Your task to perform on an android device: Go to Yahoo.com Image 0: 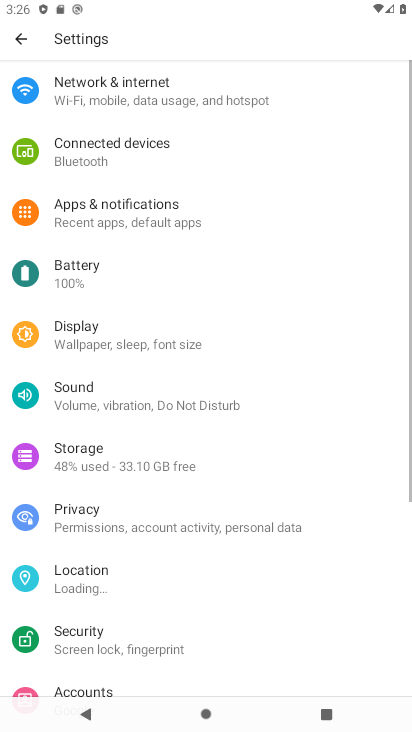
Step 0: press home button
Your task to perform on an android device: Go to Yahoo.com Image 1: 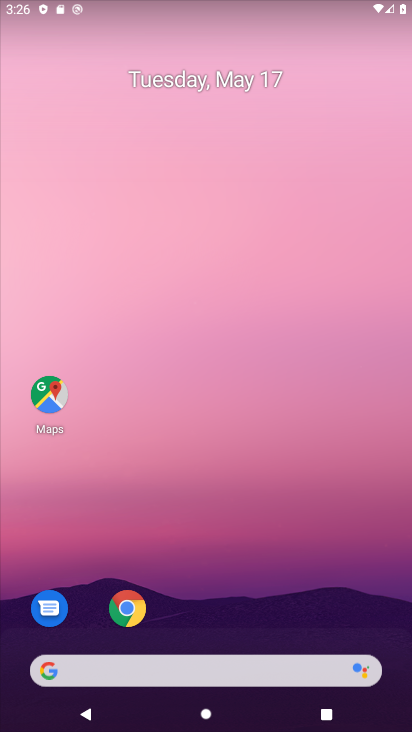
Step 1: click (125, 610)
Your task to perform on an android device: Go to Yahoo.com Image 2: 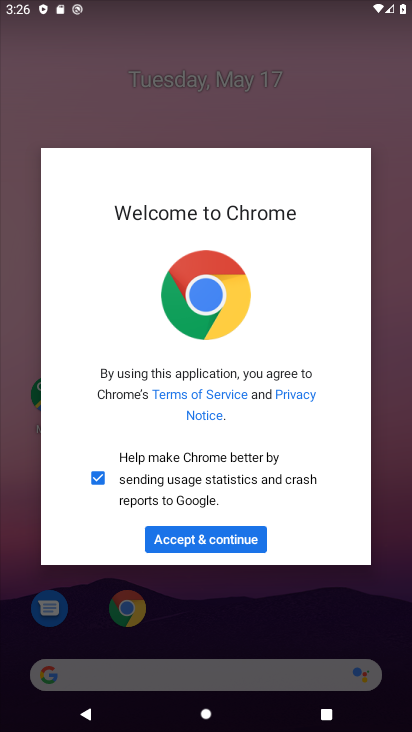
Step 2: click (202, 536)
Your task to perform on an android device: Go to Yahoo.com Image 3: 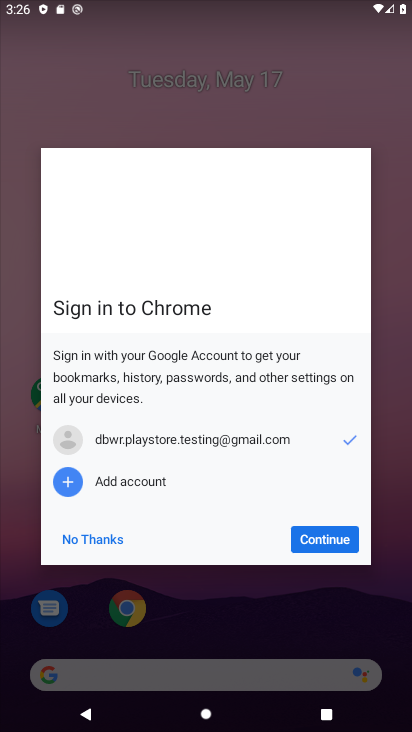
Step 3: click (297, 543)
Your task to perform on an android device: Go to Yahoo.com Image 4: 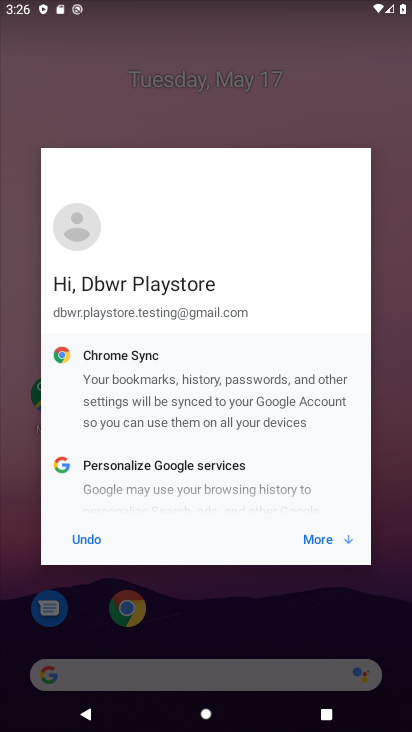
Step 4: click (308, 538)
Your task to perform on an android device: Go to Yahoo.com Image 5: 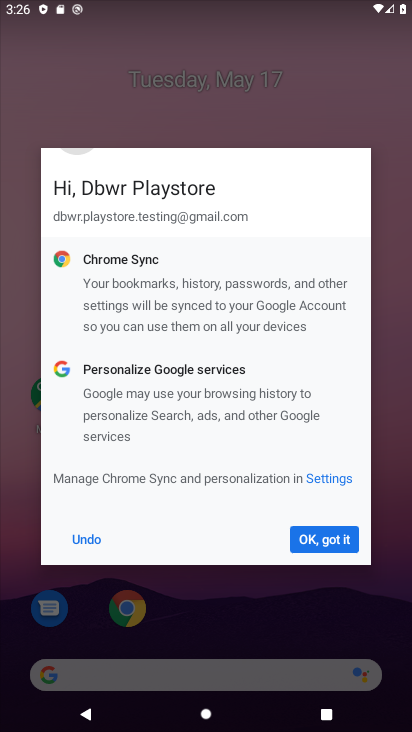
Step 5: click (308, 538)
Your task to perform on an android device: Go to Yahoo.com Image 6: 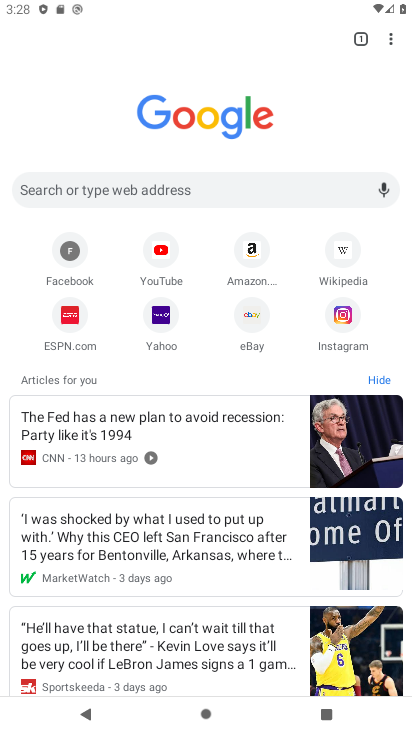
Step 6: click (160, 311)
Your task to perform on an android device: Go to Yahoo.com Image 7: 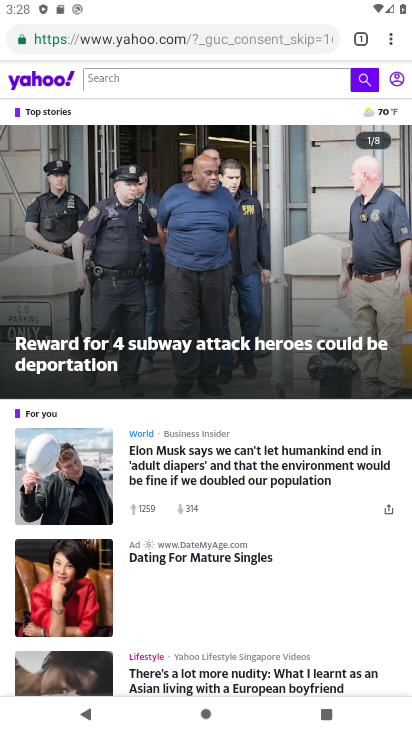
Step 7: task complete